Your task to perform on an android device: What's on my calendar today? Image 0: 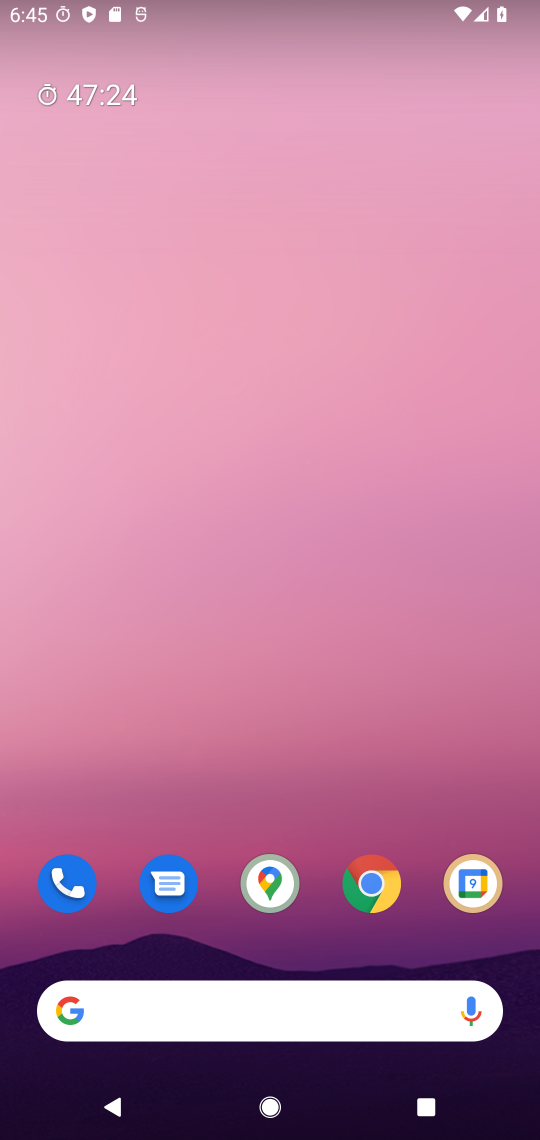
Step 0: drag from (276, 792) to (283, 208)
Your task to perform on an android device: What's on my calendar today? Image 1: 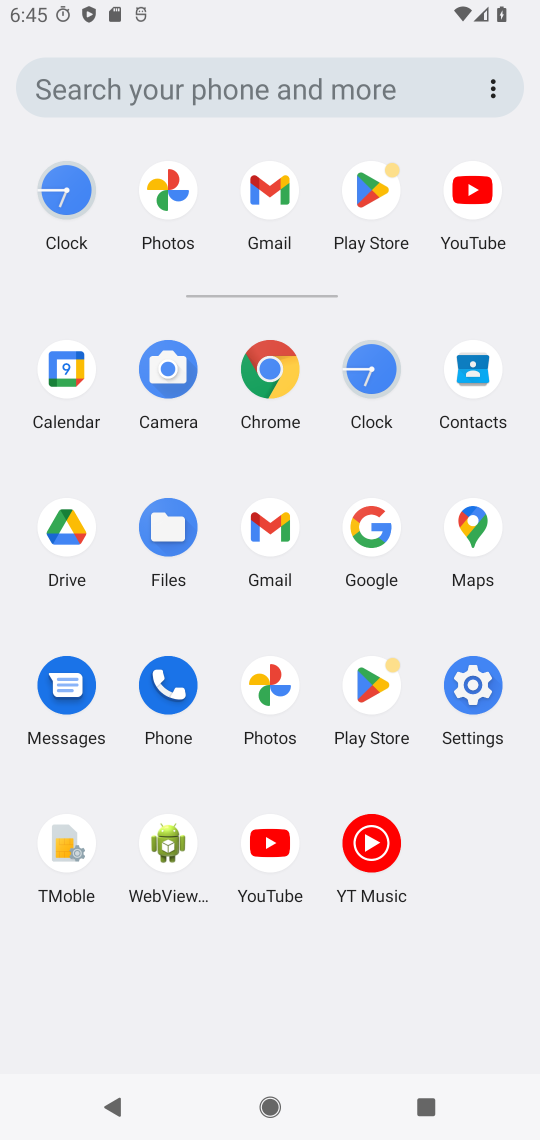
Step 1: click (71, 391)
Your task to perform on an android device: What's on my calendar today? Image 2: 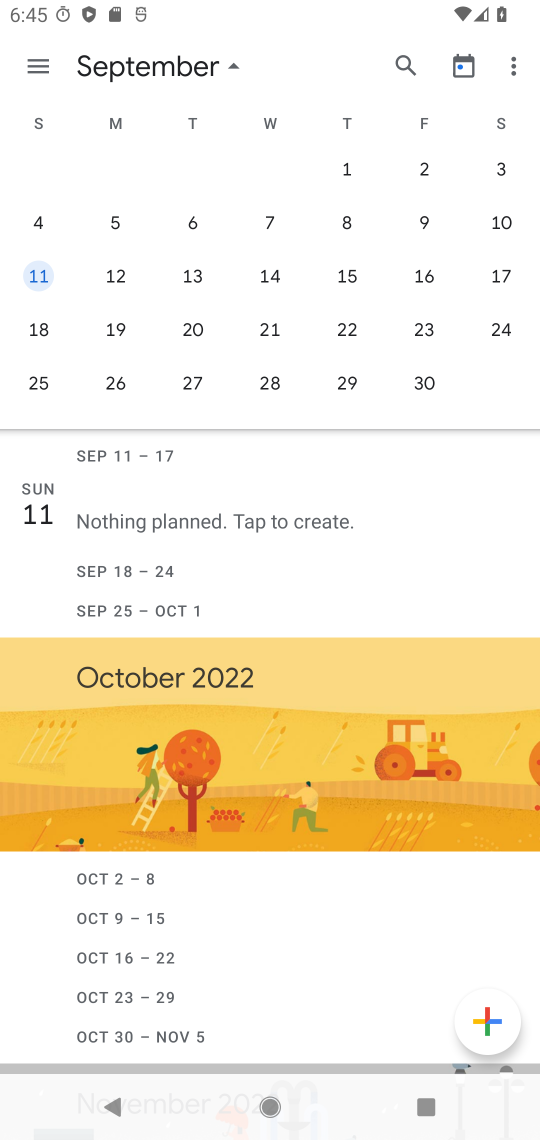
Step 2: drag from (74, 243) to (493, 245)
Your task to perform on an android device: What's on my calendar today? Image 3: 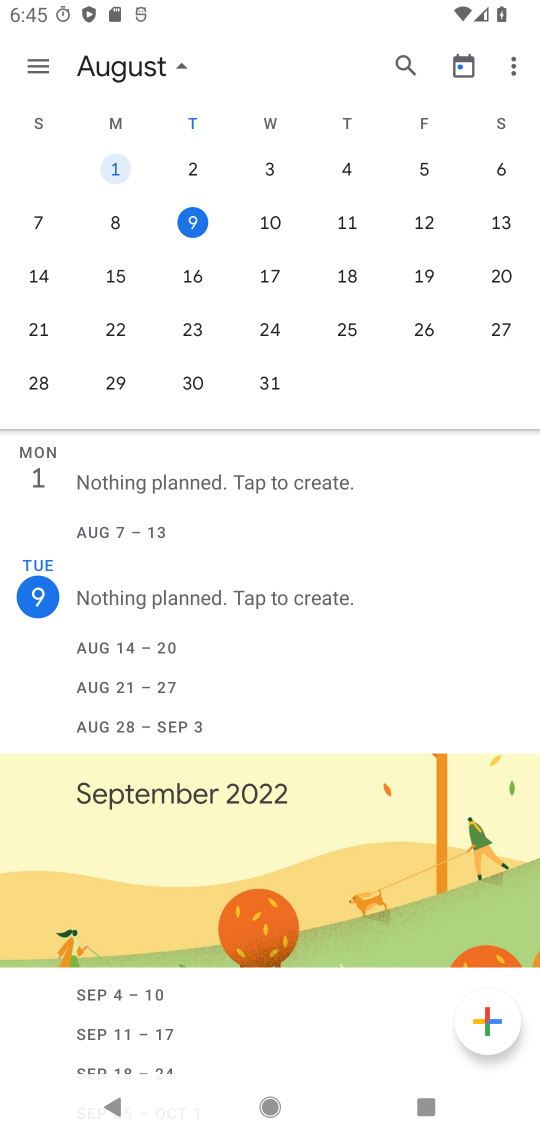
Step 3: click (188, 220)
Your task to perform on an android device: What's on my calendar today? Image 4: 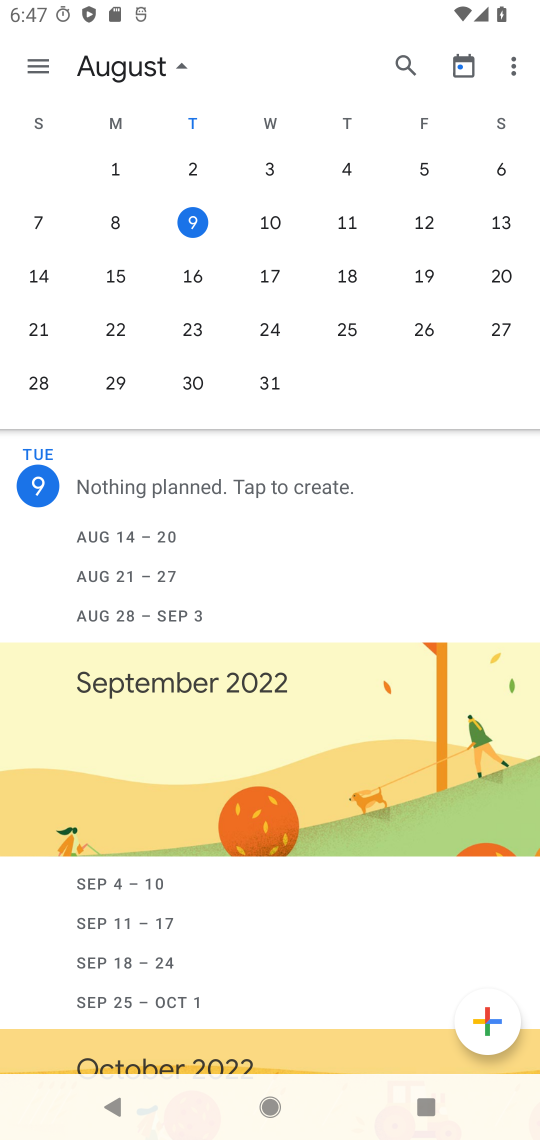
Step 4: click (192, 233)
Your task to perform on an android device: What's on my calendar today? Image 5: 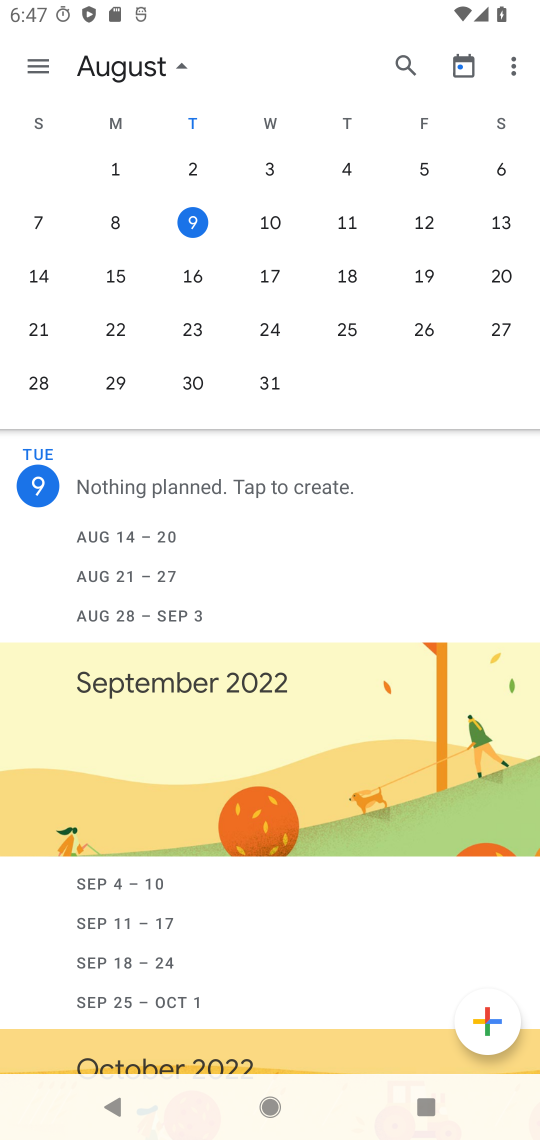
Step 5: task complete